Your task to perform on an android device: Open my contact list Image 0: 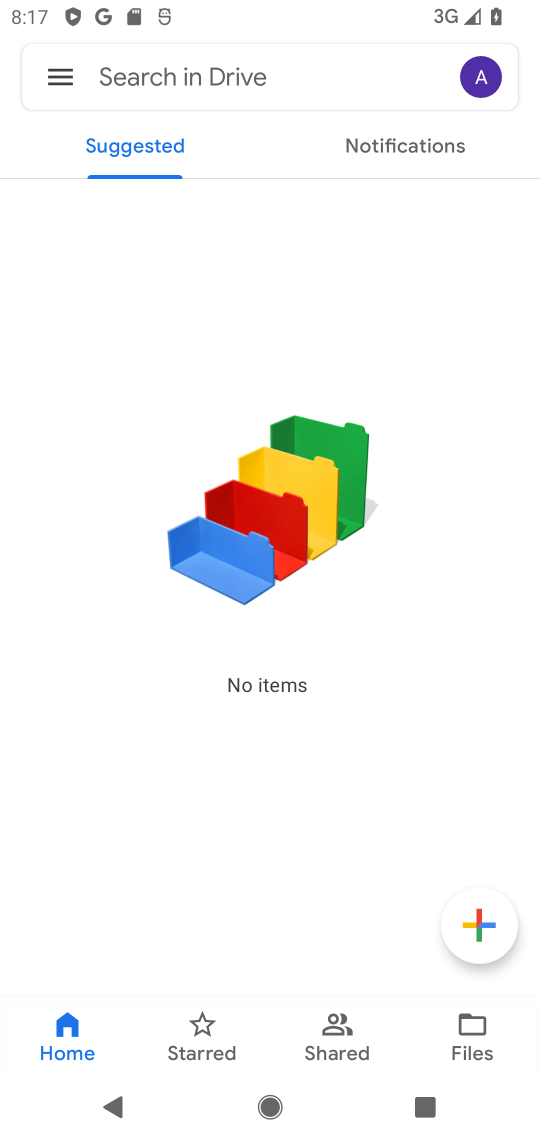
Step 0: press home button
Your task to perform on an android device: Open my contact list Image 1: 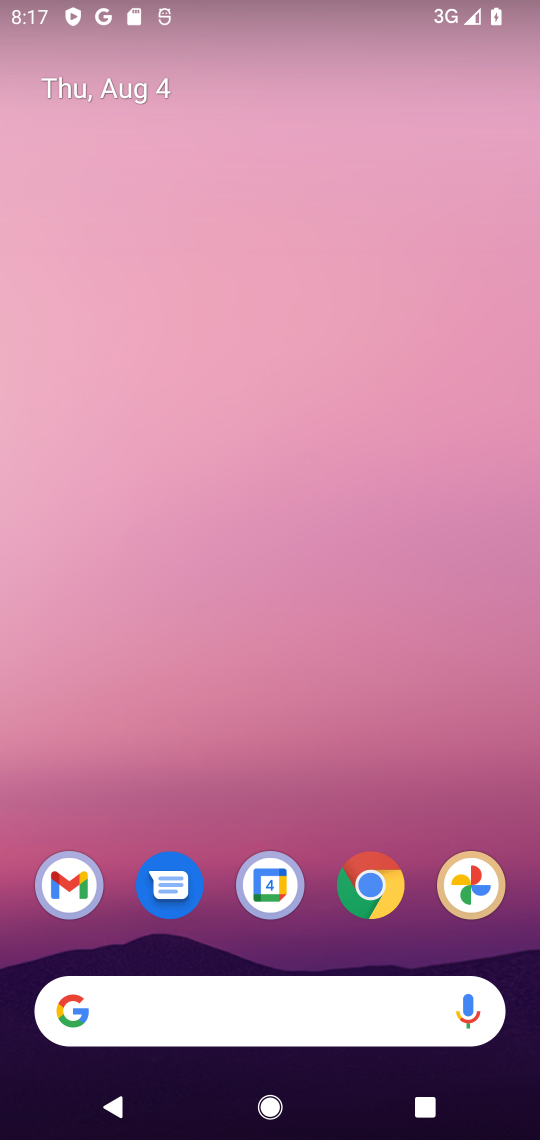
Step 1: drag from (321, 834) to (313, 13)
Your task to perform on an android device: Open my contact list Image 2: 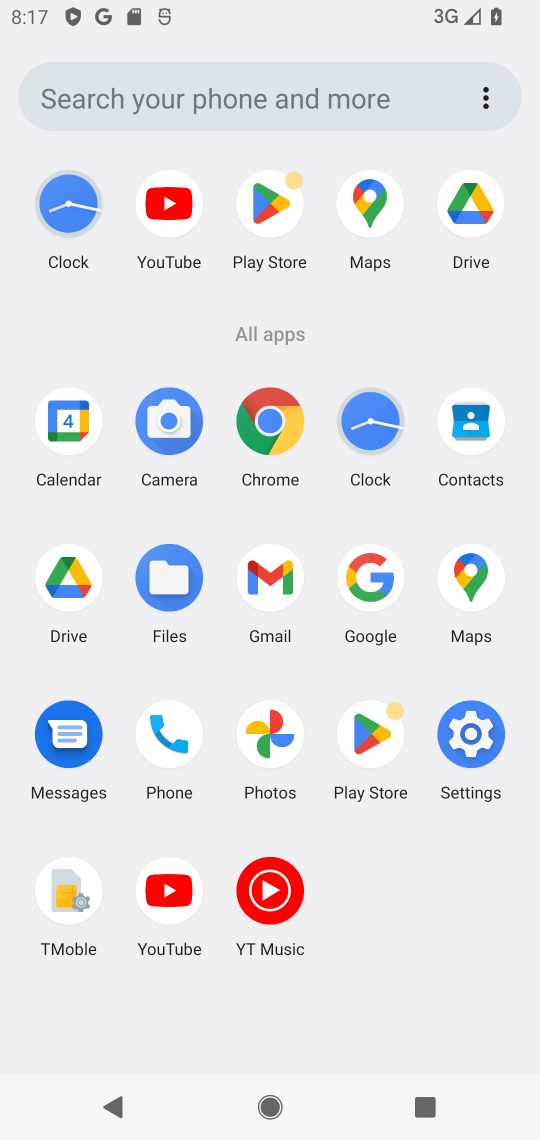
Step 2: click (468, 419)
Your task to perform on an android device: Open my contact list Image 3: 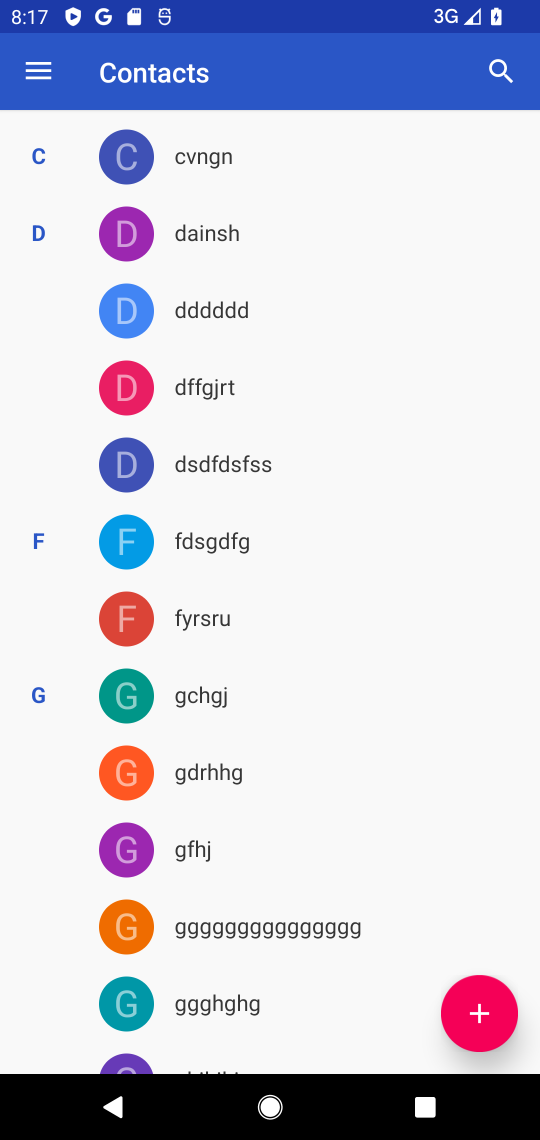
Step 3: click (468, 419)
Your task to perform on an android device: Open my contact list Image 4: 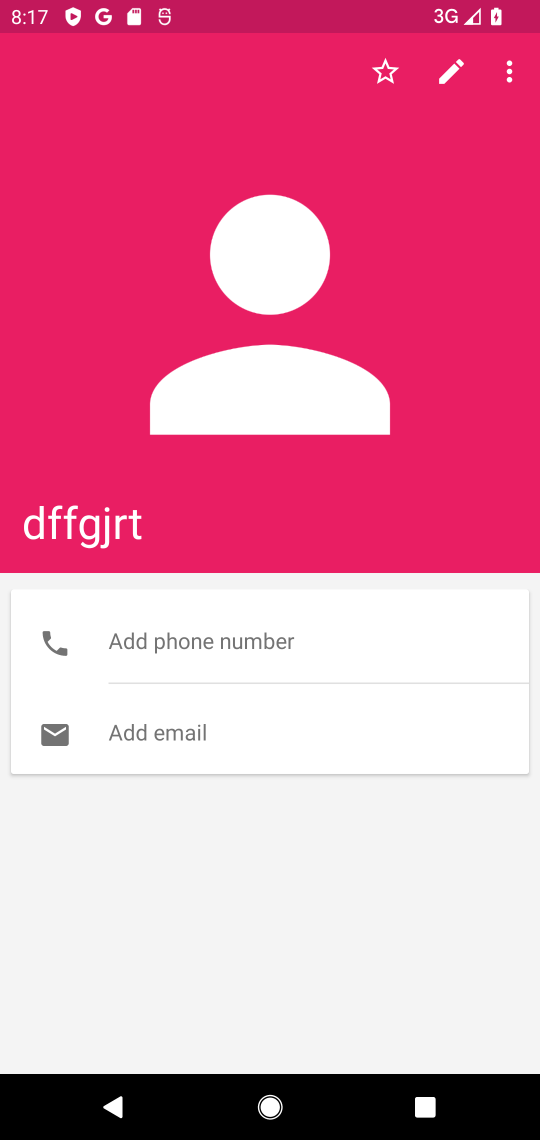
Step 4: task complete